Your task to perform on an android device: change the clock display to analog Image 0: 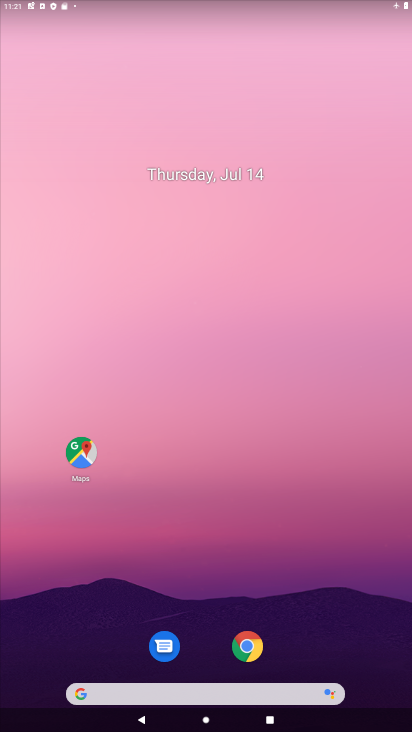
Step 0: drag from (198, 617) to (156, 204)
Your task to perform on an android device: change the clock display to analog Image 1: 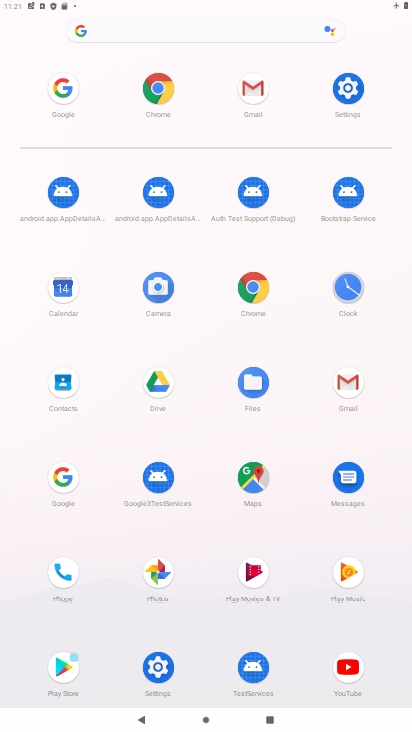
Step 1: click (338, 281)
Your task to perform on an android device: change the clock display to analog Image 2: 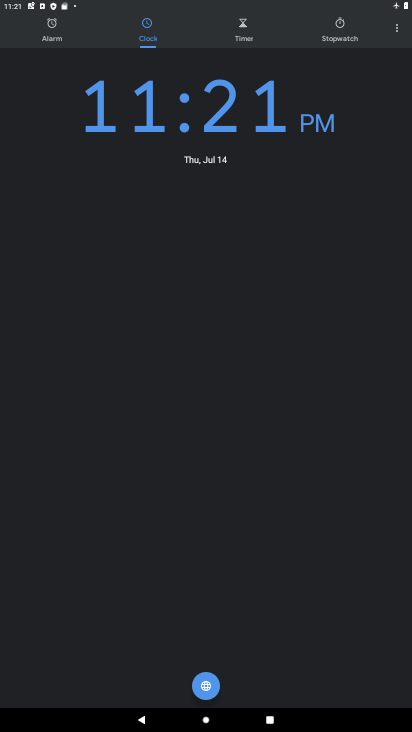
Step 2: click (394, 36)
Your task to perform on an android device: change the clock display to analog Image 3: 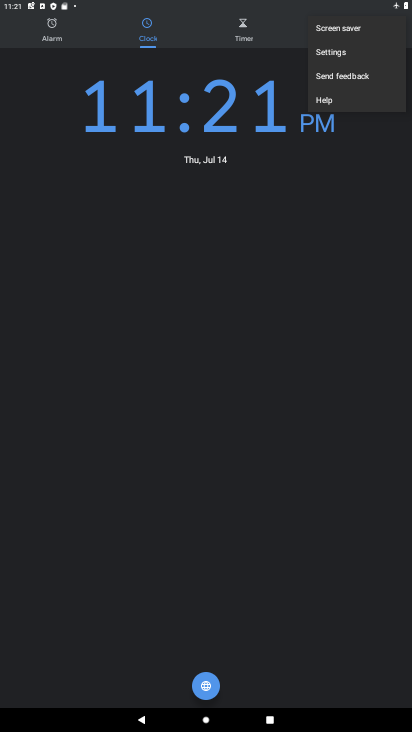
Step 3: click (361, 56)
Your task to perform on an android device: change the clock display to analog Image 4: 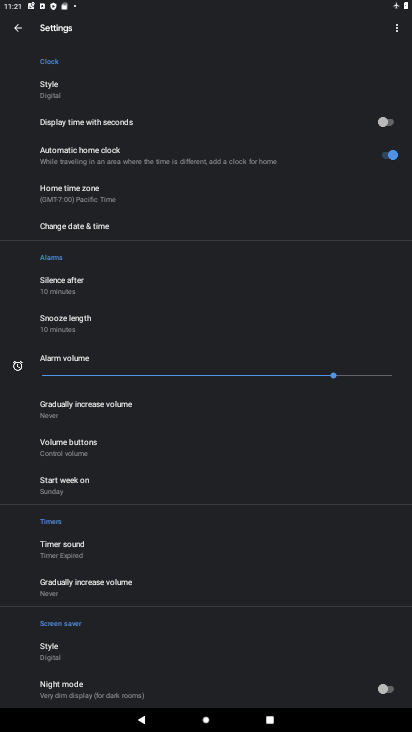
Step 4: click (80, 95)
Your task to perform on an android device: change the clock display to analog Image 5: 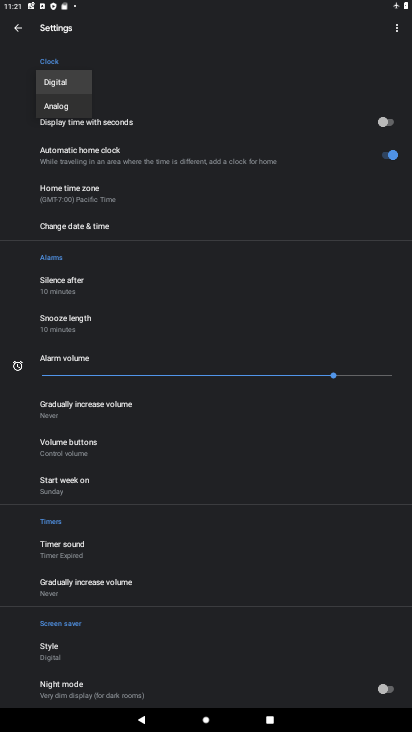
Step 5: click (60, 110)
Your task to perform on an android device: change the clock display to analog Image 6: 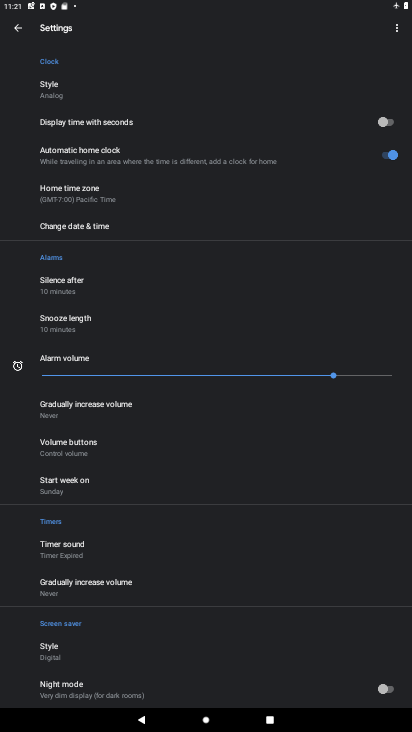
Step 6: task complete